Your task to perform on an android device: Open the Play Movies app and select the watchlist tab. Image 0: 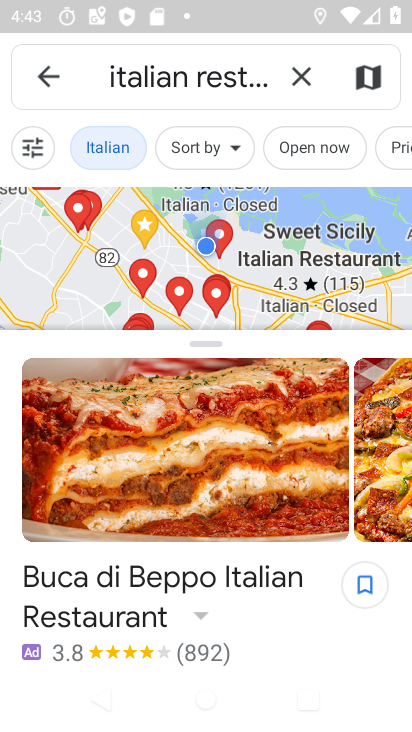
Step 0: press home button
Your task to perform on an android device: Open the Play Movies app and select the watchlist tab. Image 1: 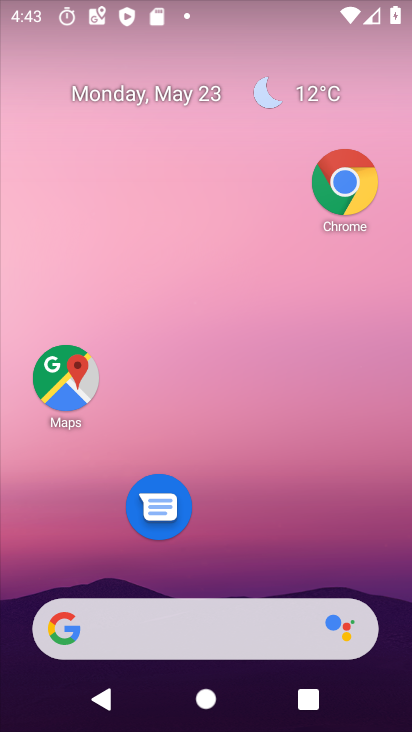
Step 1: drag from (225, 567) to (236, 77)
Your task to perform on an android device: Open the Play Movies app and select the watchlist tab. Image 2: 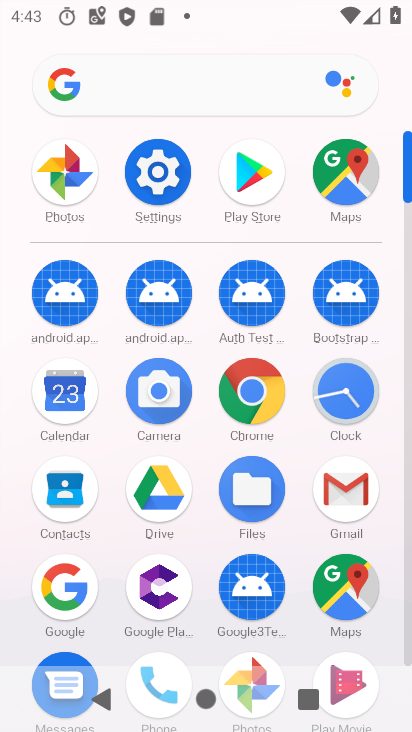
Step 2: click (346, 660)
Your task to perform on an android device: Open the Play Movies app and select the watchlist tab. Image 3: 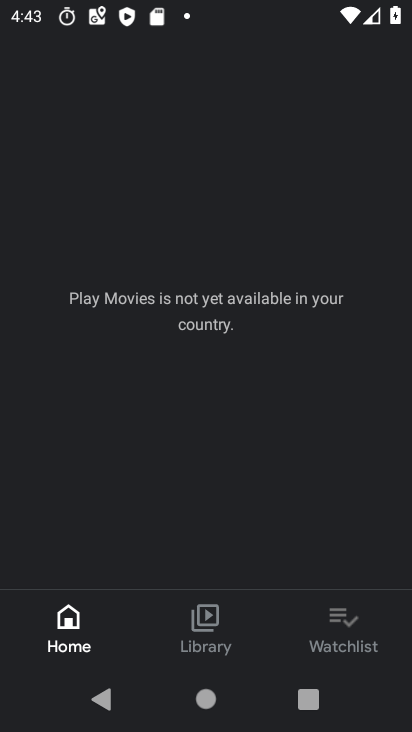
Step 3: click (323, 636)
Your task to perform on an android device: Open the Play Movies app and select the watchlist tab. Image 4: 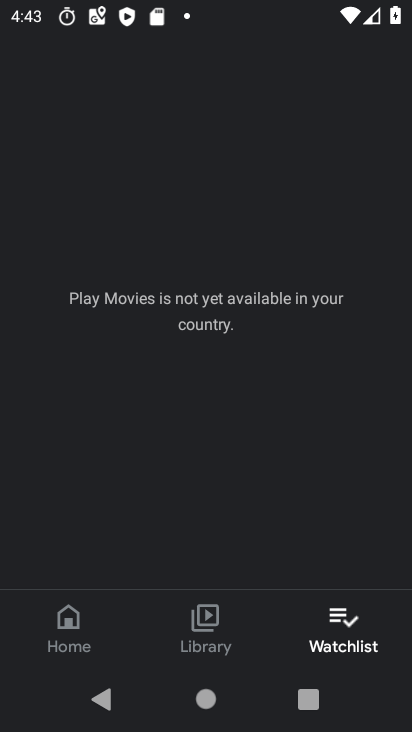
Step 4: task complete